Your task to perform on an android device: Clear the cart on newegg. Add "alienware area 51" to the cart on newegg, then select checkout. Image 0: 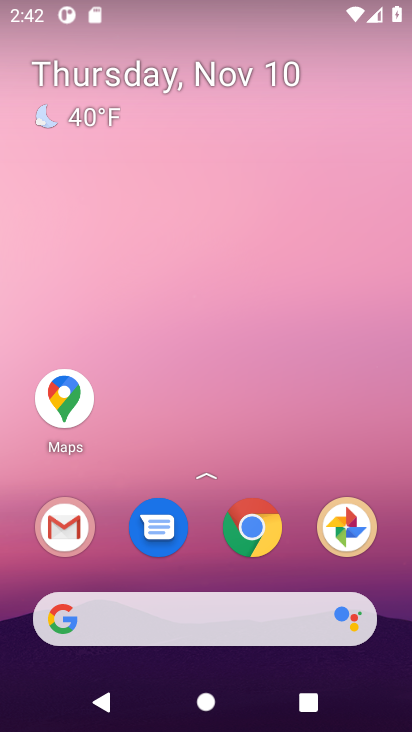
Step 0: drag from (189, 498) to (73, 43)
Your task to perform on an android device: Clear the cart on newegg. Add "alienware area 51" to the cart on newegg, then select checkout. Image 1: 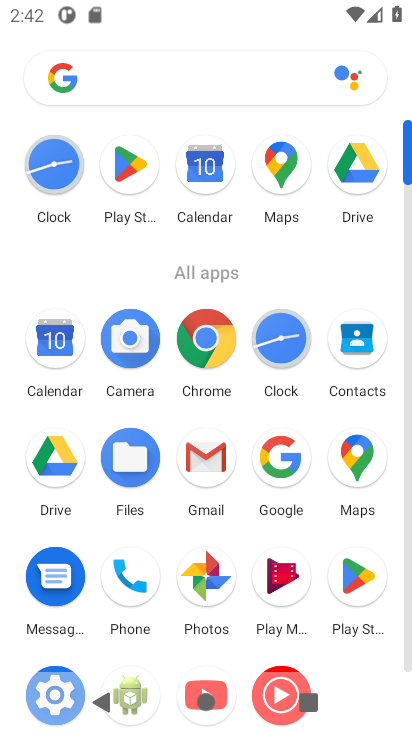
Step 1: click (209, 344)
Your task to perform on an android device: Clear the cart on newegg. Add "alienware area 51" to the cart on newegg, then select checkout. Image 2: 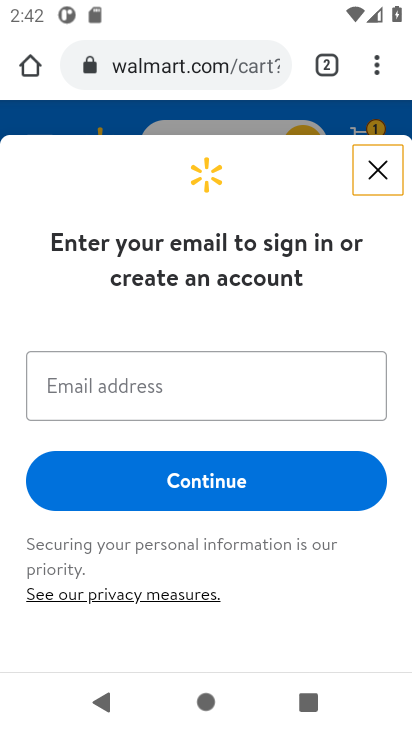
Step 2: click (191, 66)
Your task to perform on an android device: Clear the cart on newegg. Add "alienware area 51" to the cart on newegg, then select checkout. Image 3: 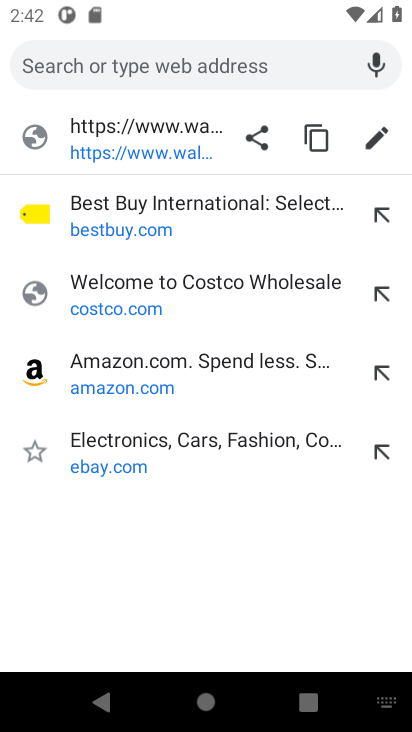
Step 3: type "newegg"
Your task to perform on an android device: Clear the cart on newegg. Add "alienware area 51" to the cart on newegg, then select checkout. Image 4: 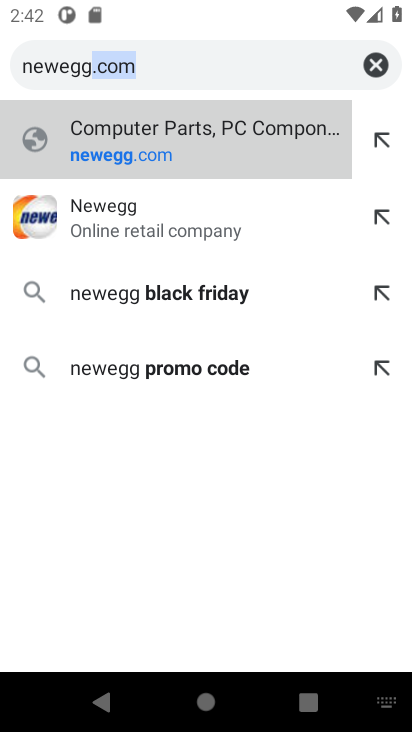
Step 4: press enter
Your task to perform on an android device: Clear the cart on newegg. Add "alienware area 51" to the cart on newegg, then select checkout. Image 5: 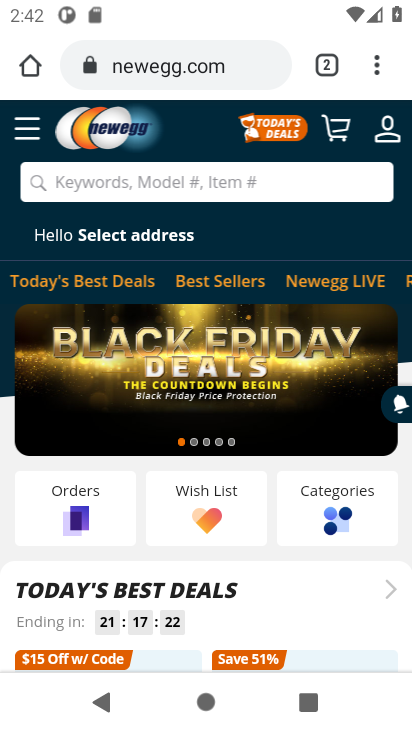
Step 5: click (118, 178)
Your task to perform on an android device: Clear the cart on newegg. Add "alienware area 51" to the cart on newegg, then select checkout. Image 6: 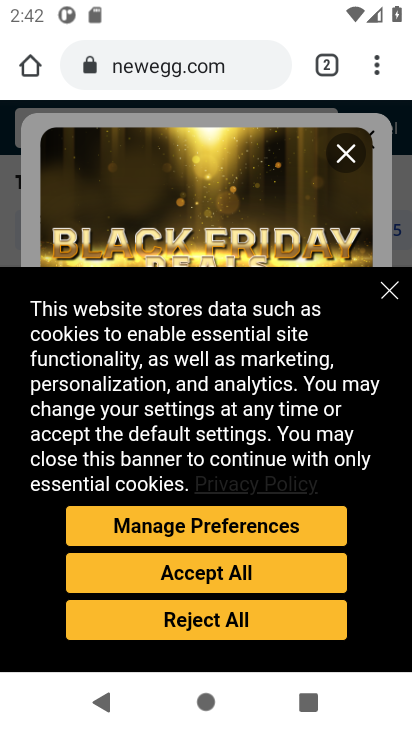
Step 6: click (173, 585)
Your task to perform on an android device: Clear the cart on newegg. Add "alienware area 51" to the cart on newegg, then select checkout. Image 7: 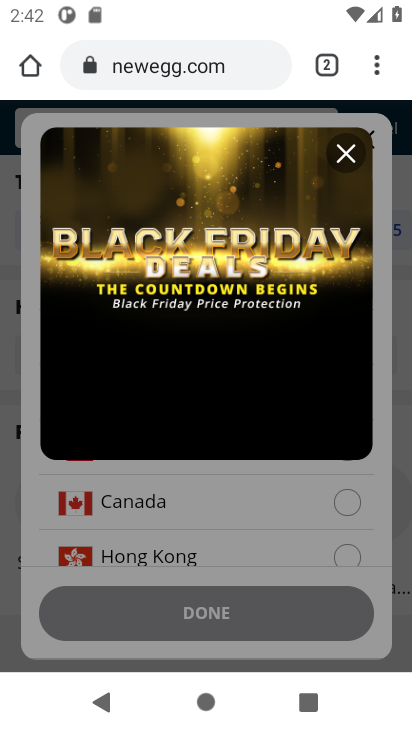
Step 7: click (348, 155)
Your task to perform on an android device: Clear the cart on newegg. Add "alienware area 51" to the cart on newegg, then select checkout. Image 8: 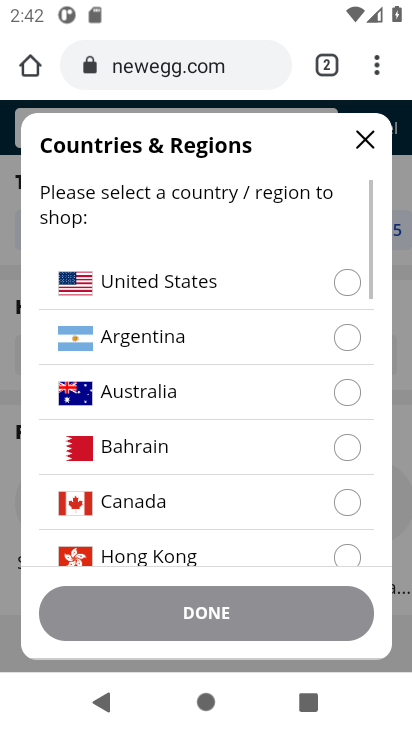
Step 8: click (137, 272)
Your task to perform on an android device: Clear the cart on newegg. Add "alienware area 51" to the cart on newegg, then select checkout. Image 9: 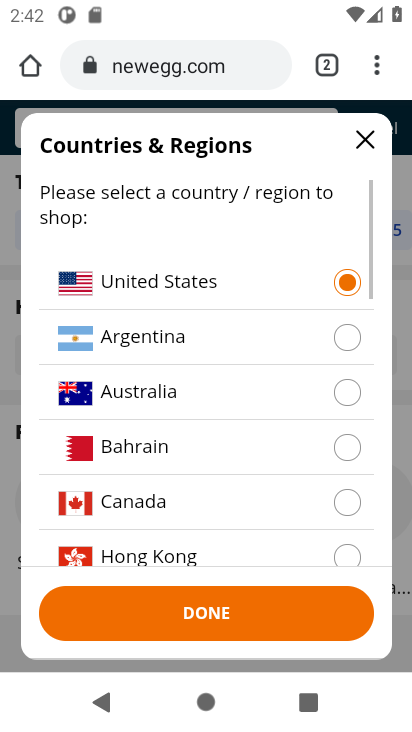
Step 9: click (217, 623)
Your task to perform on an android device: Clear the cart on newegg. Add "alienware area 51" to the cart on newegg, then select checkout. Image 10: 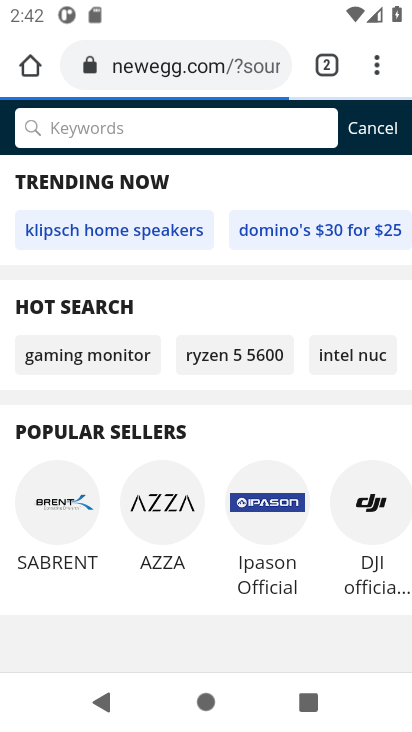
Step 10: click (105, 135)
Your task to perform on an android device: Clear the cart on newegg. Add "alienware area 51" to the cart on newegg, then select checkout. Image 11: 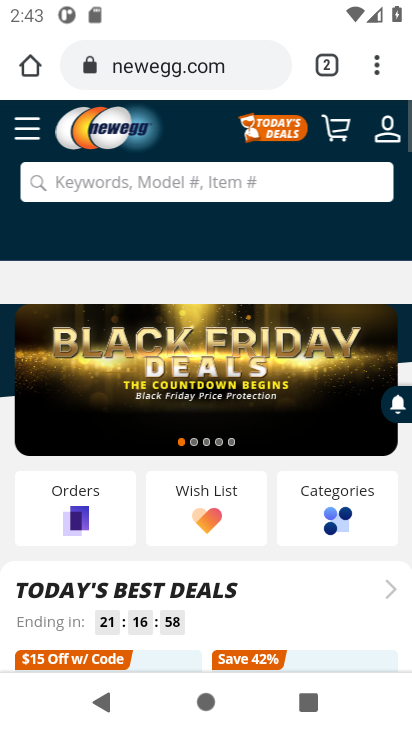
Step 11: click (80, 179)
Your task to perform on an android device: Clear the cart on newegg. Add "alienware area 51" to the cart on newegg, then select checkout. Image 12: 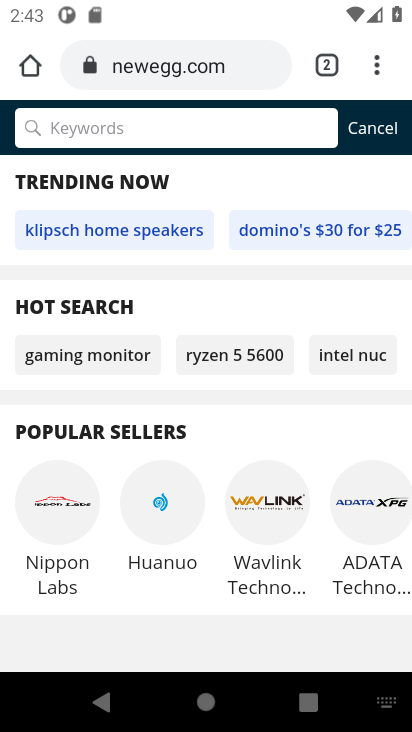
Step 12: type "alienware area 51"
Your task to perform on an android device: Clear the cart on newegg. Add "alienware area 51" to the cart on newegg, then select checkout. Image 13: 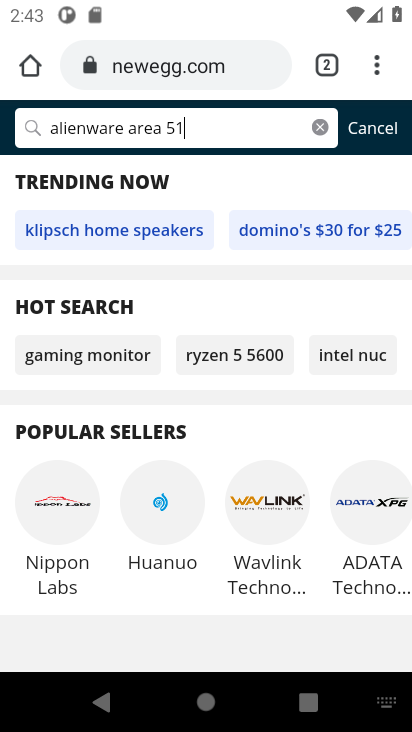
Step 13: press enter
Your task to perform on an android device: Clear the cart on newegg. Add "alienware area 51" to the cart on newegg, then select checkout. Image 14: 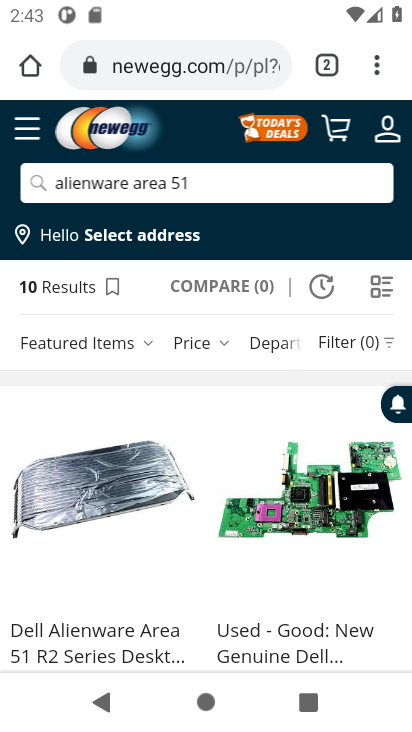
Step 14: drag from (179, 565) to (223, 174)
Your task to perform on an android device: Clear the cart on newegg. Add "alienware area 51" to the cart on newegg, then select checkout. Image 15: 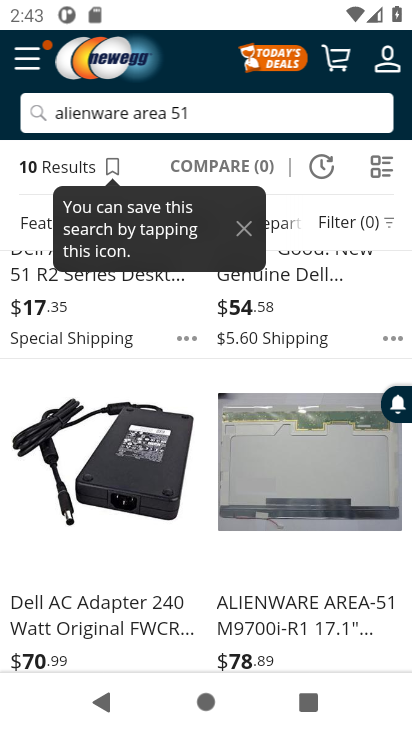
Step 15: click (140, 617)
Your task to perform on an android device: Clear the cart on newegg. Add "alienware area 51" to the cart on newegg, then select checkout. Image 16: 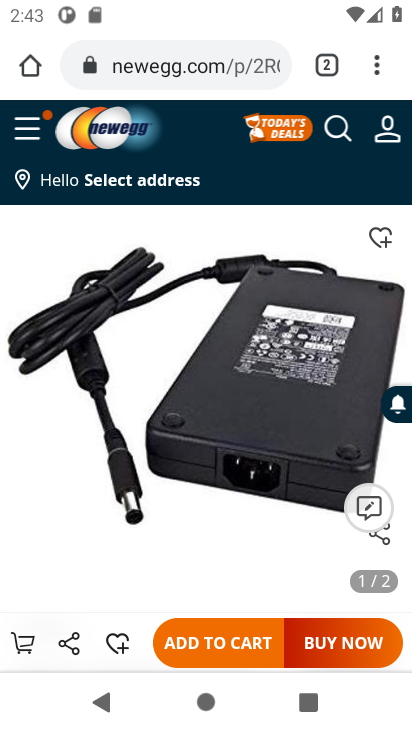
Step 16: drag from (171, 340) to (218, 489)
Your task to perform on an android device: Clear the cart on newegg. Add "alienware area 51" to the cart on newegg, then select checkout. Image 17: 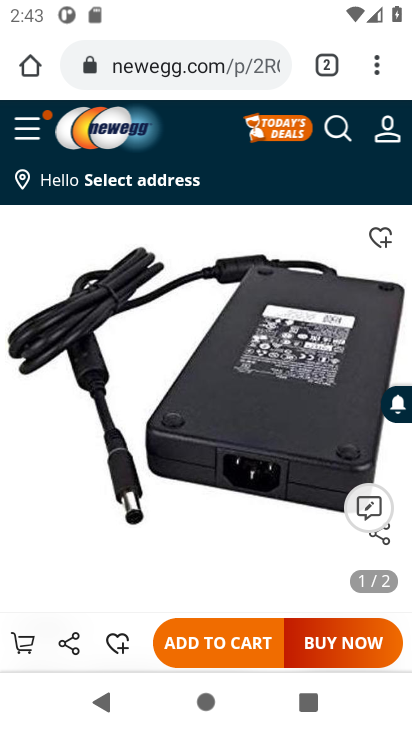
Step 17: click (230, 645)
Your task to perform on an android device: Clear the cart on newegg. Add "alienware area 51" to the cart on newegg, then select checkout. Image 18: 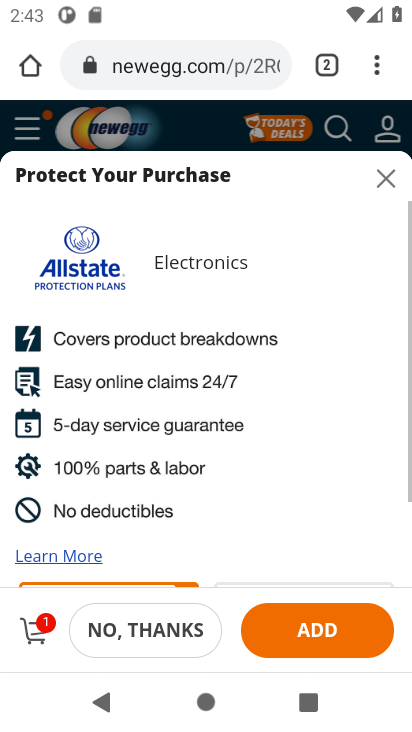
Step 18: click (387, 185)
Your task to perform on an android device: Clear the cart on newegg. Add "alienware area 51" to the cart on newegg, then select checkout. Image 19: 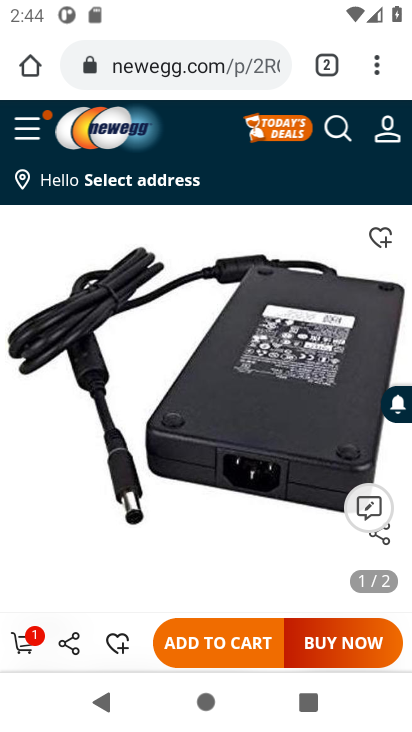
Step 19: click (32, 628)
Your task to perform on an android device: Clear the cart on newegg. Add "alienware area 51" to the cart on newegg, then select checkout. Image 20: 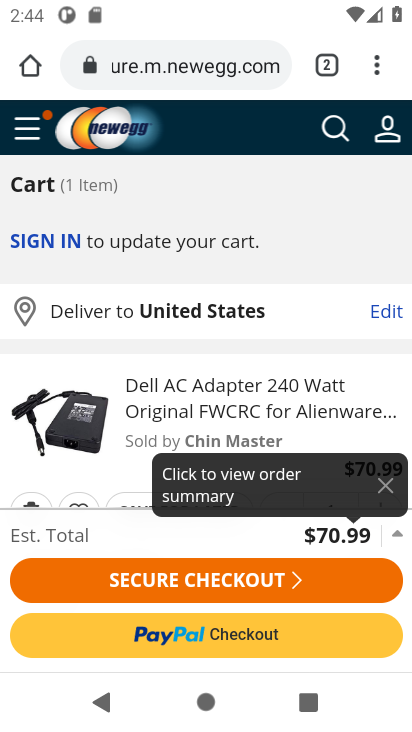
Step 20: click (221, 573)
Your task to perform on an android device: Clear the cart on newegg. Add "alienware area 51" to the cart on newegg, then select checkout. Image 21: 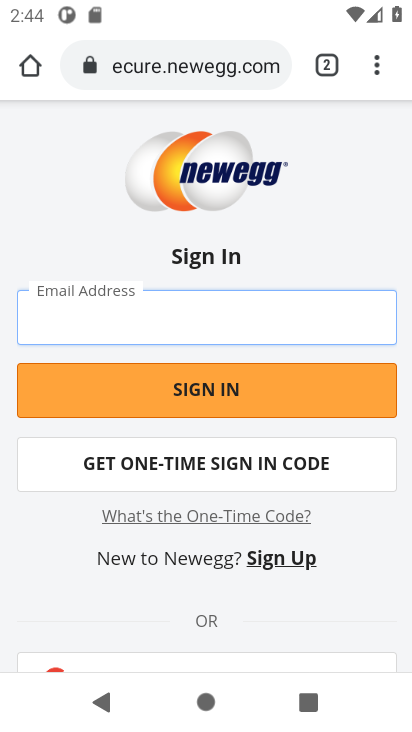
Step 21: task complete